Your task to perform on an android device: turn off notifications settings in the gmail app Image 0: 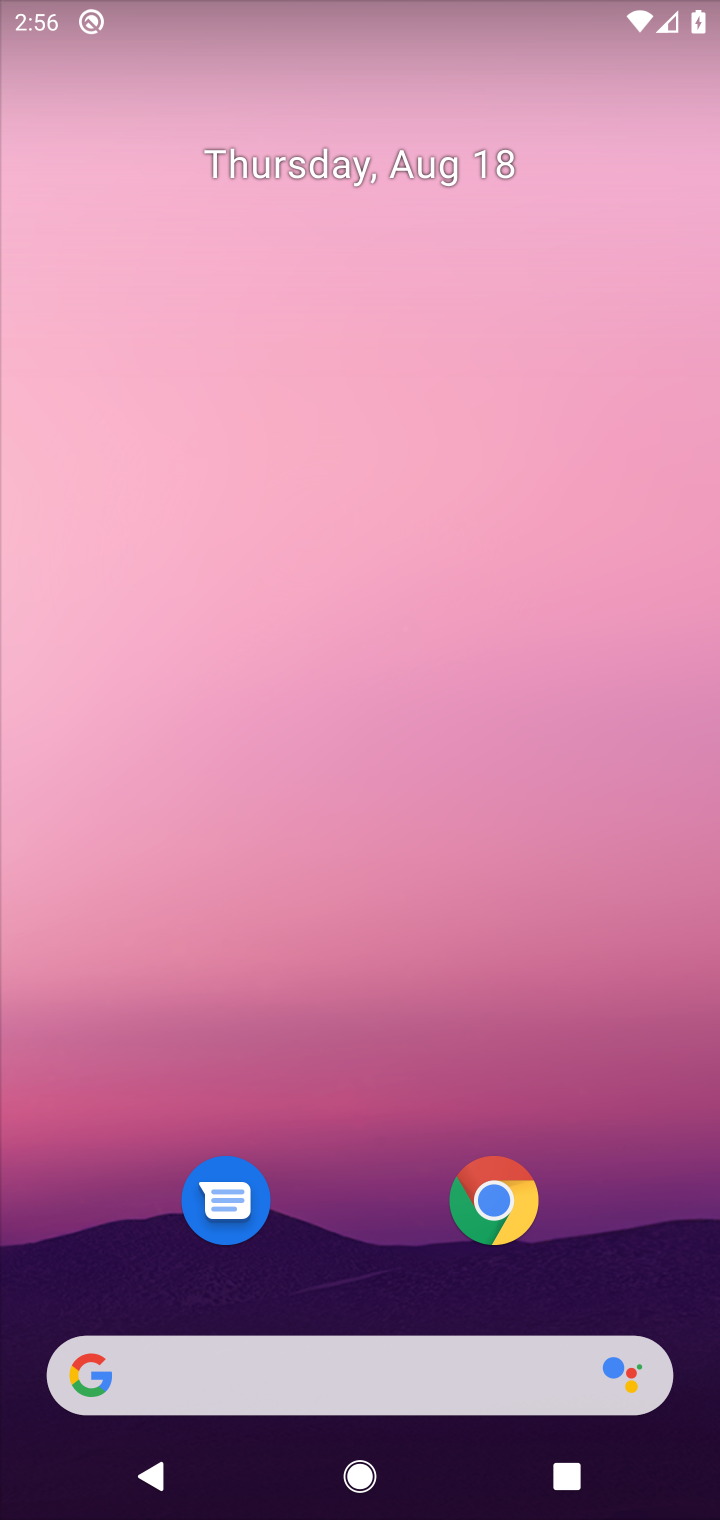
Step 0: press home button
Your task to perform on an android device: turn off notifications settings in the gmail app Image 1: 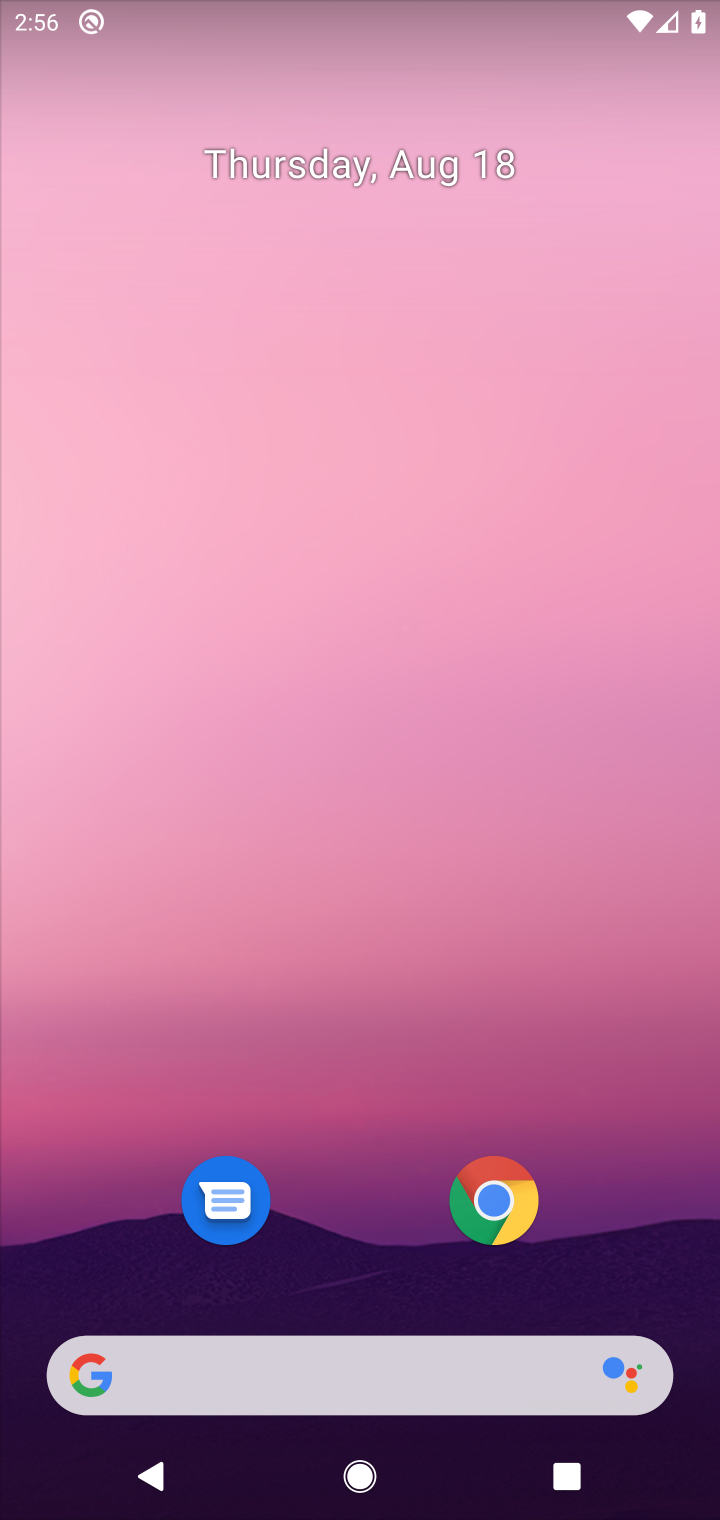
Step 1: drag from (420, 1268) to (388, 103)
Your task to perform on an android device: turn off notifications settings in the gmail app Image 2: 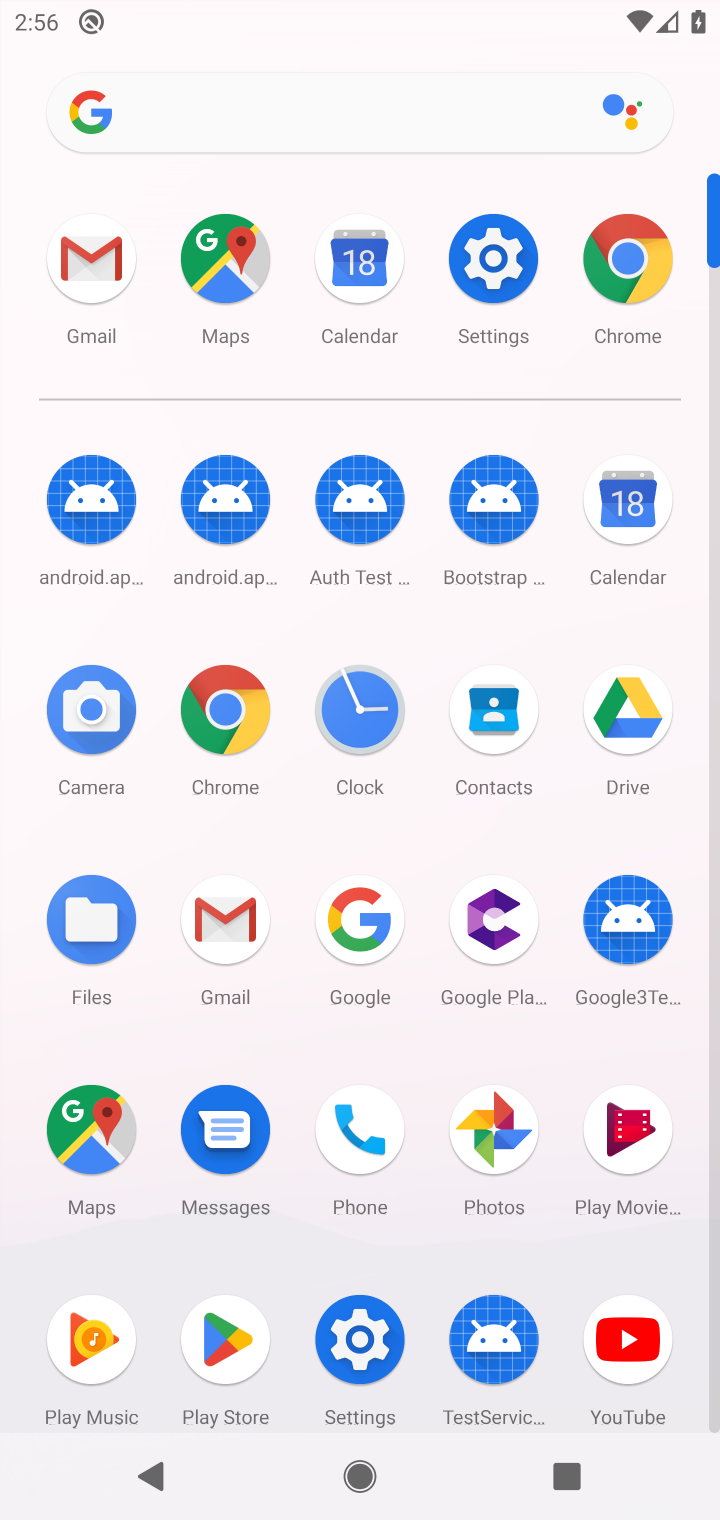
Step 2: click (366, 1312)
Your task to perform on an android device: turn off notifications settings in the gmail app Image 3: 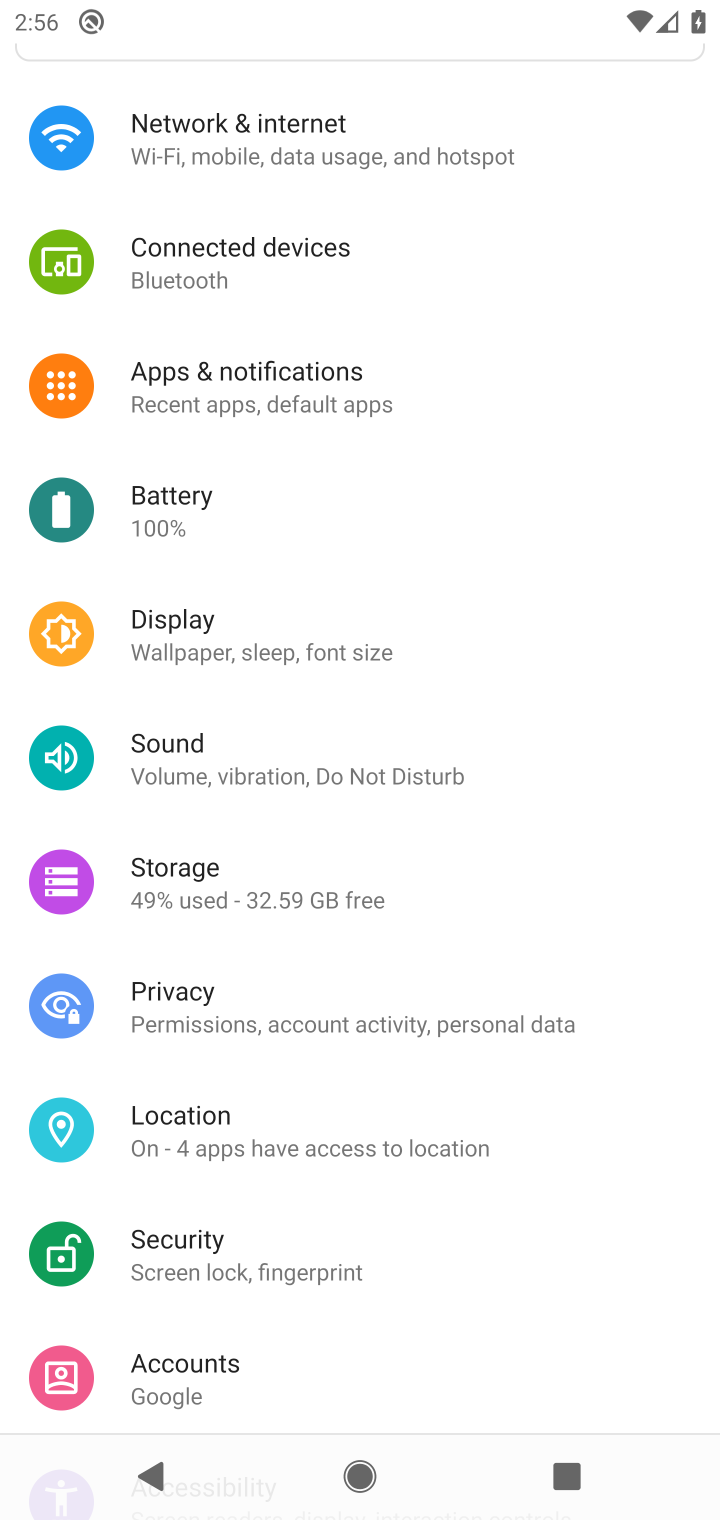
Step 3: click (277, 391)
Your task to perform on an android device: turn off notifications settings in the gmail app Image 4: 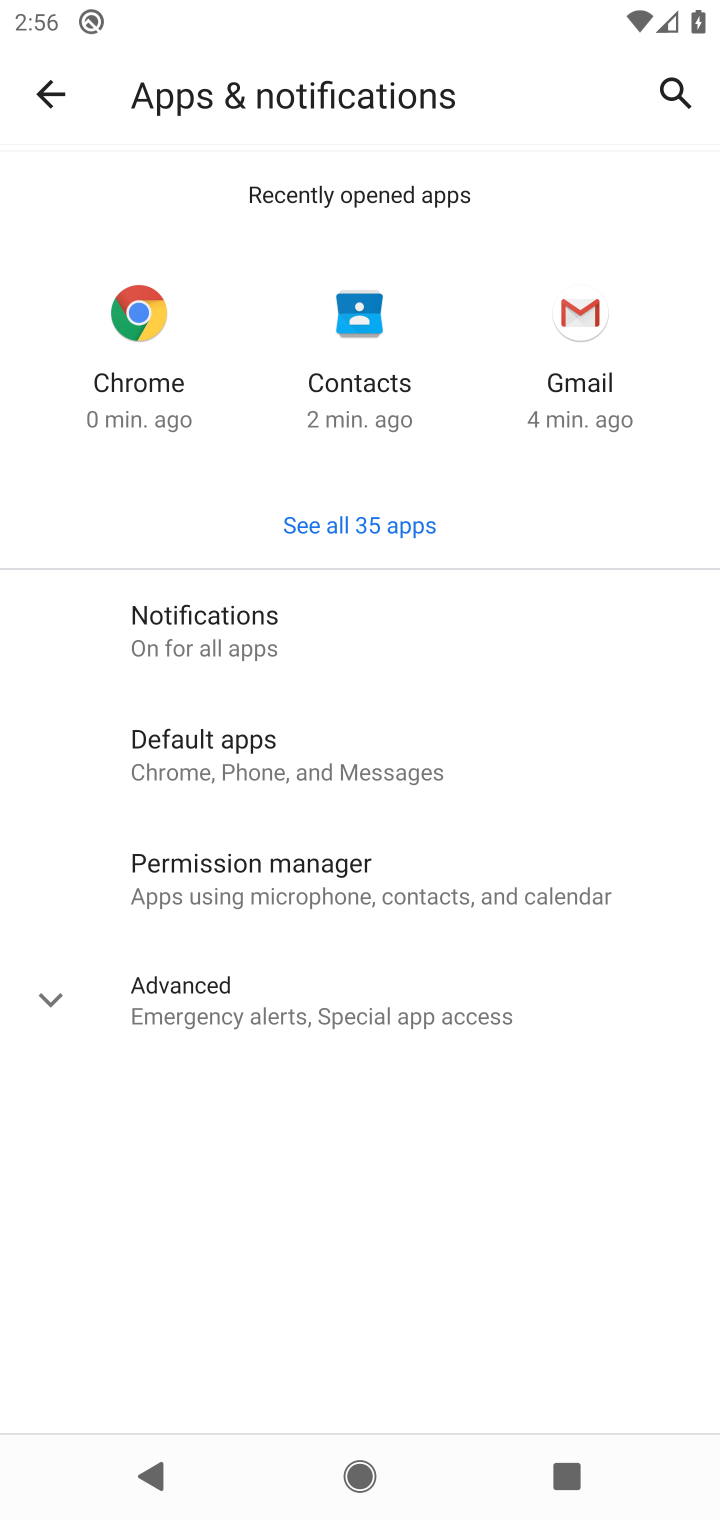
Step 4: click (242, 595)
Your task to perform on an android device: turn off notifications settings in the gmail app Image 5: 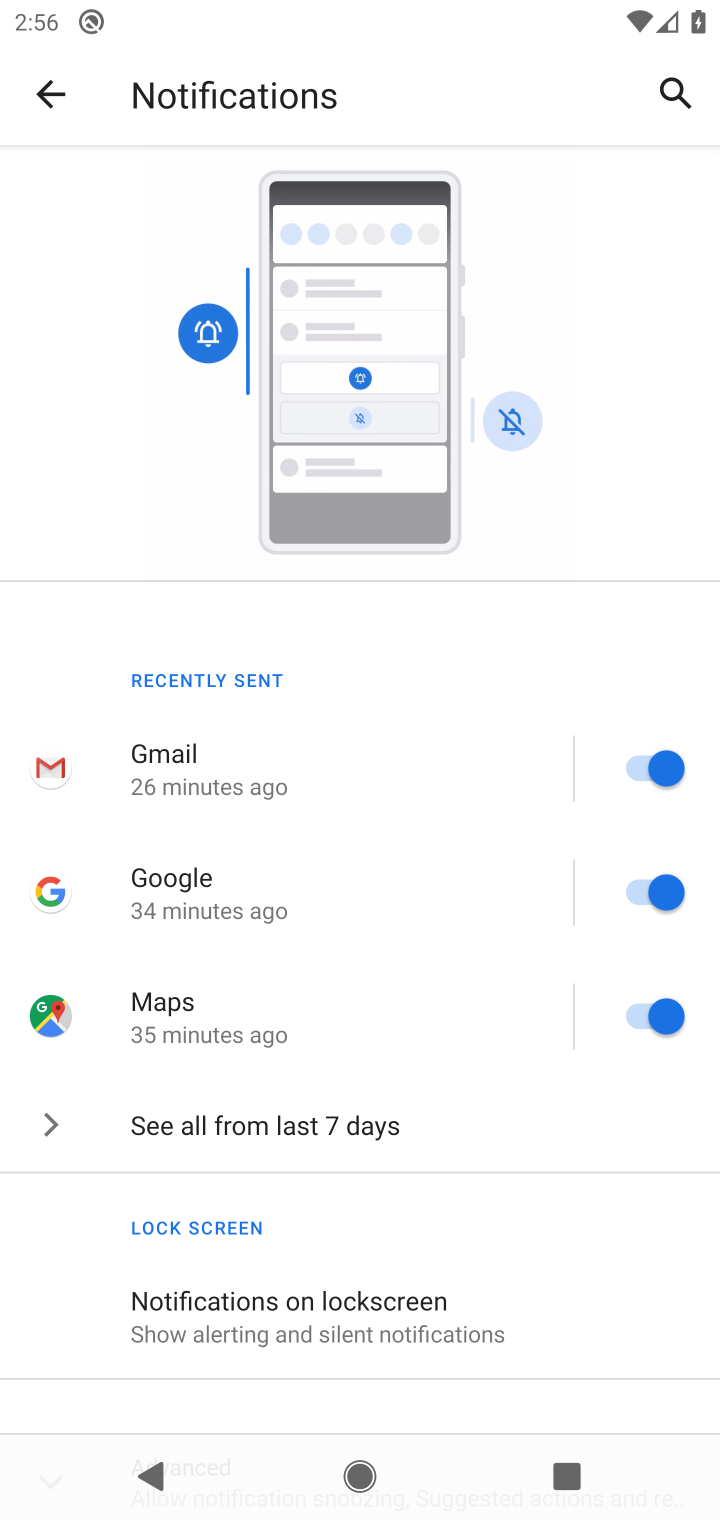
Step 5: press home button
Your task to perform on an android device: turn off notifications settings in the gmail app Image 6: 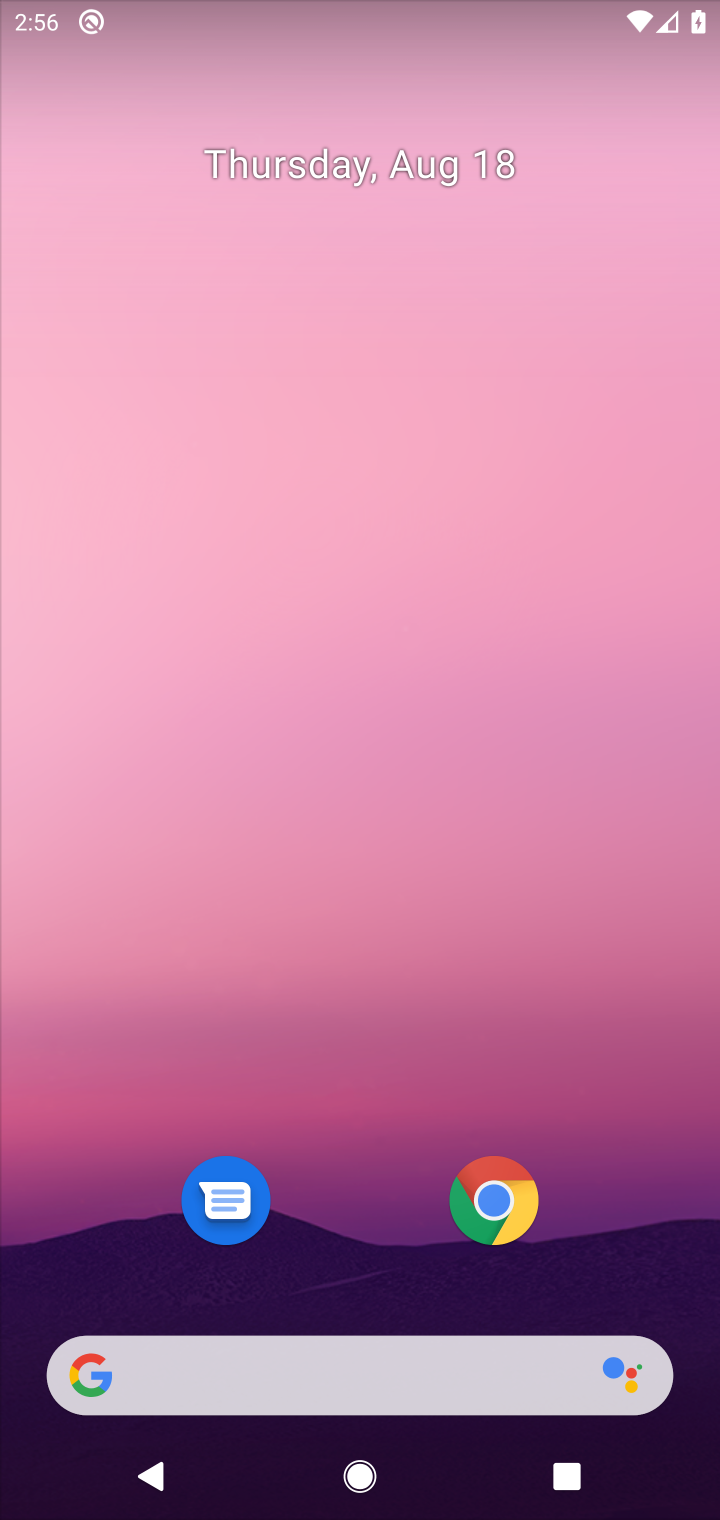
Step 6: drag from (315, 1215) to (365, 442)
Your task to perform on an android device: turn off notifications settings in the gmail app Image 7: 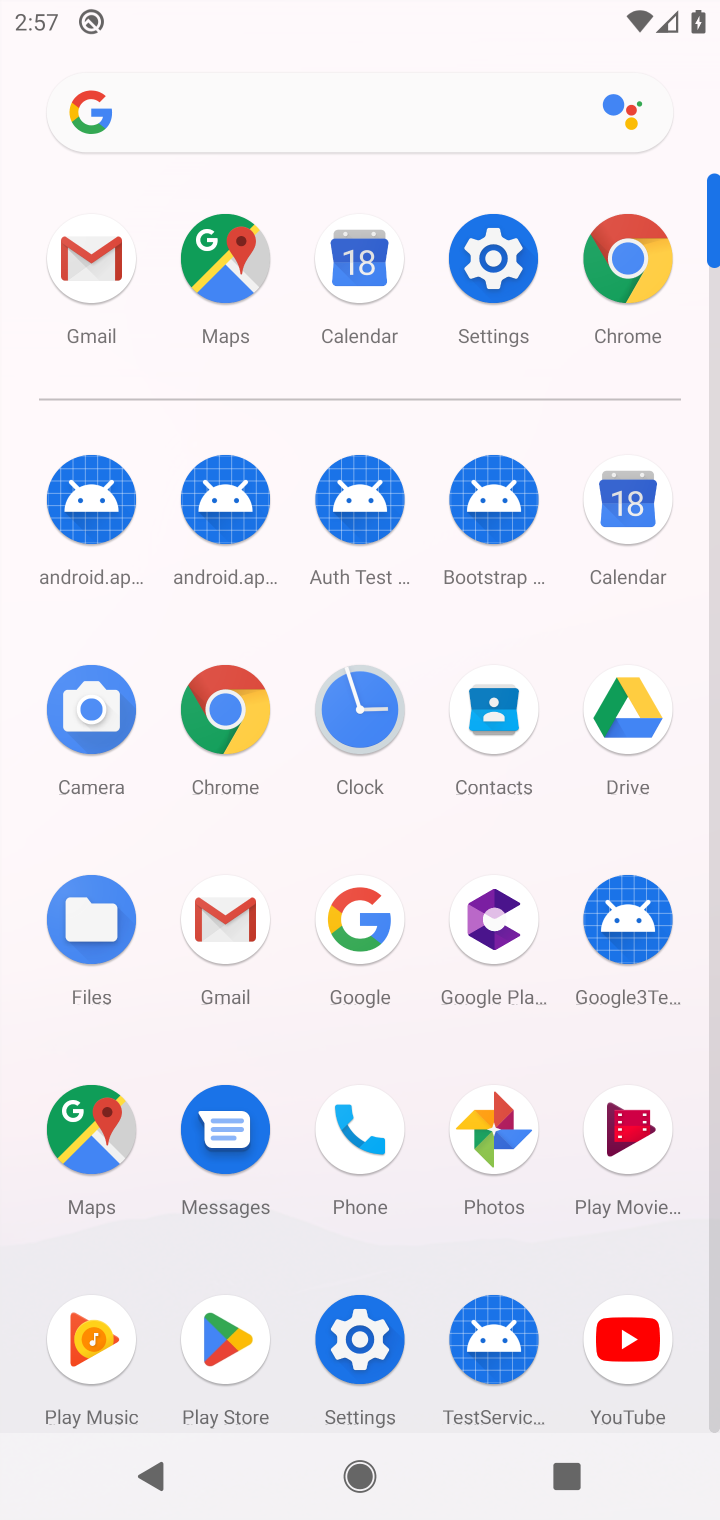
Step 7: click (208, 942)
Your task to perform on an android device: turn off notifications settings in the gmail app Image 8: 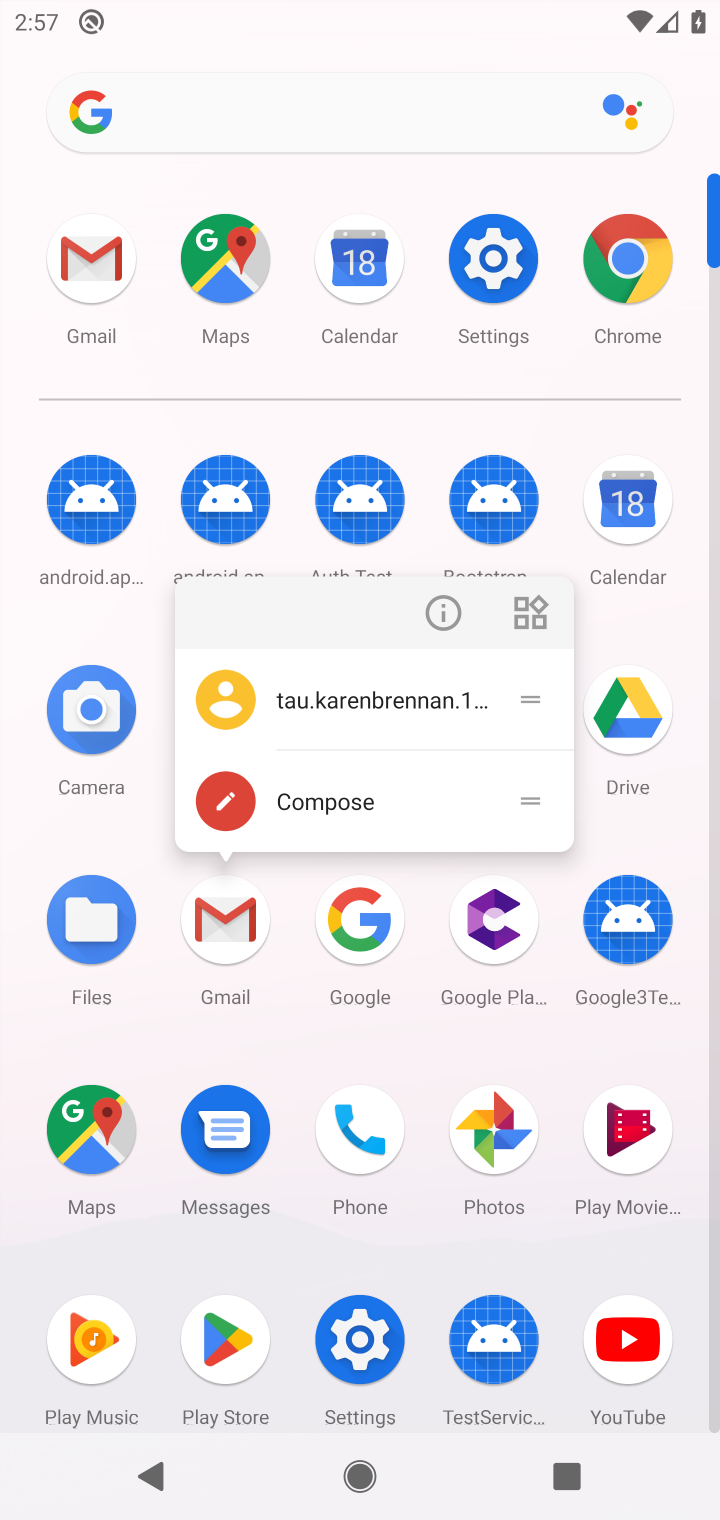
Step 8: click (421, 617)
Your task to perform on an android device: turn off notifications settings in the gmail app Image 9: 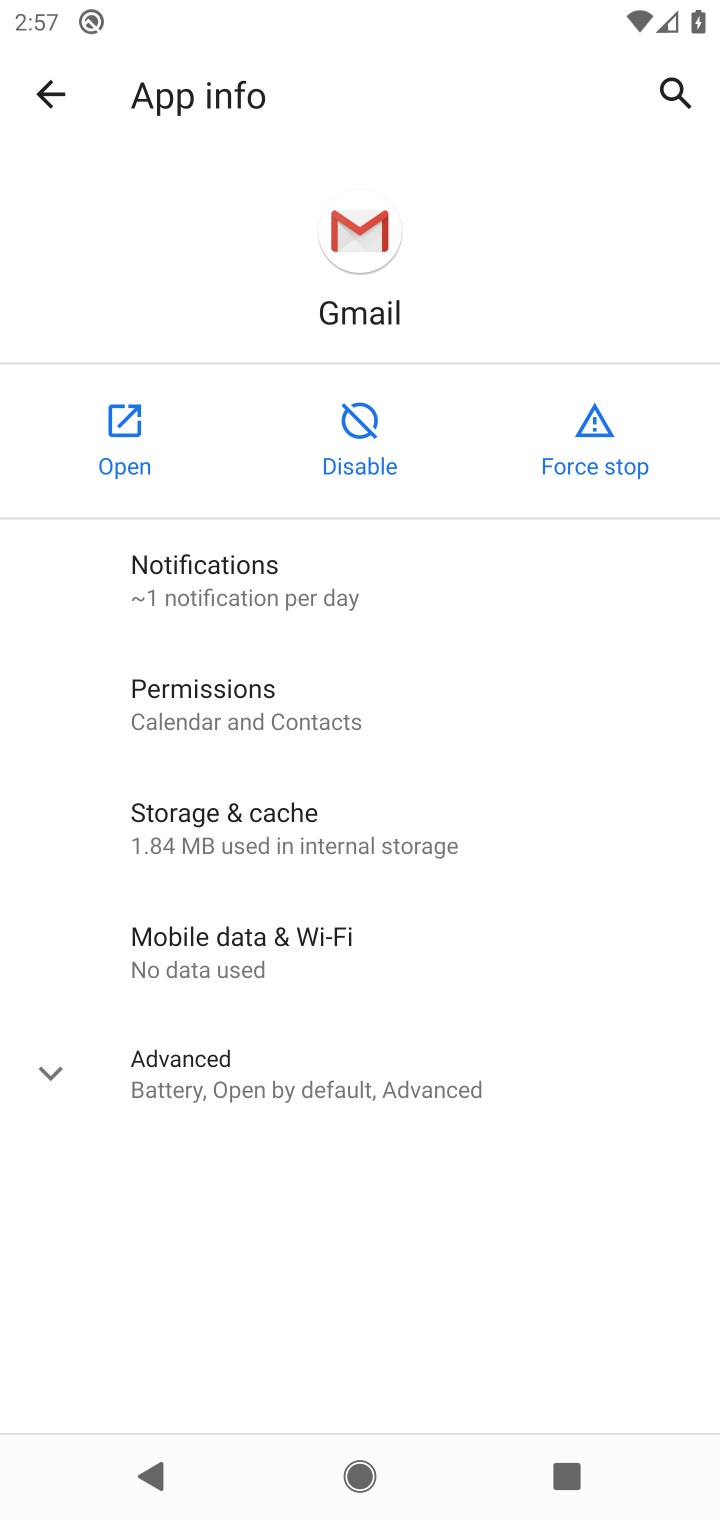
Step 9: click (290, 582)
Your task to perform on an android device: turn off notifications settings in the gmail app Image 10: 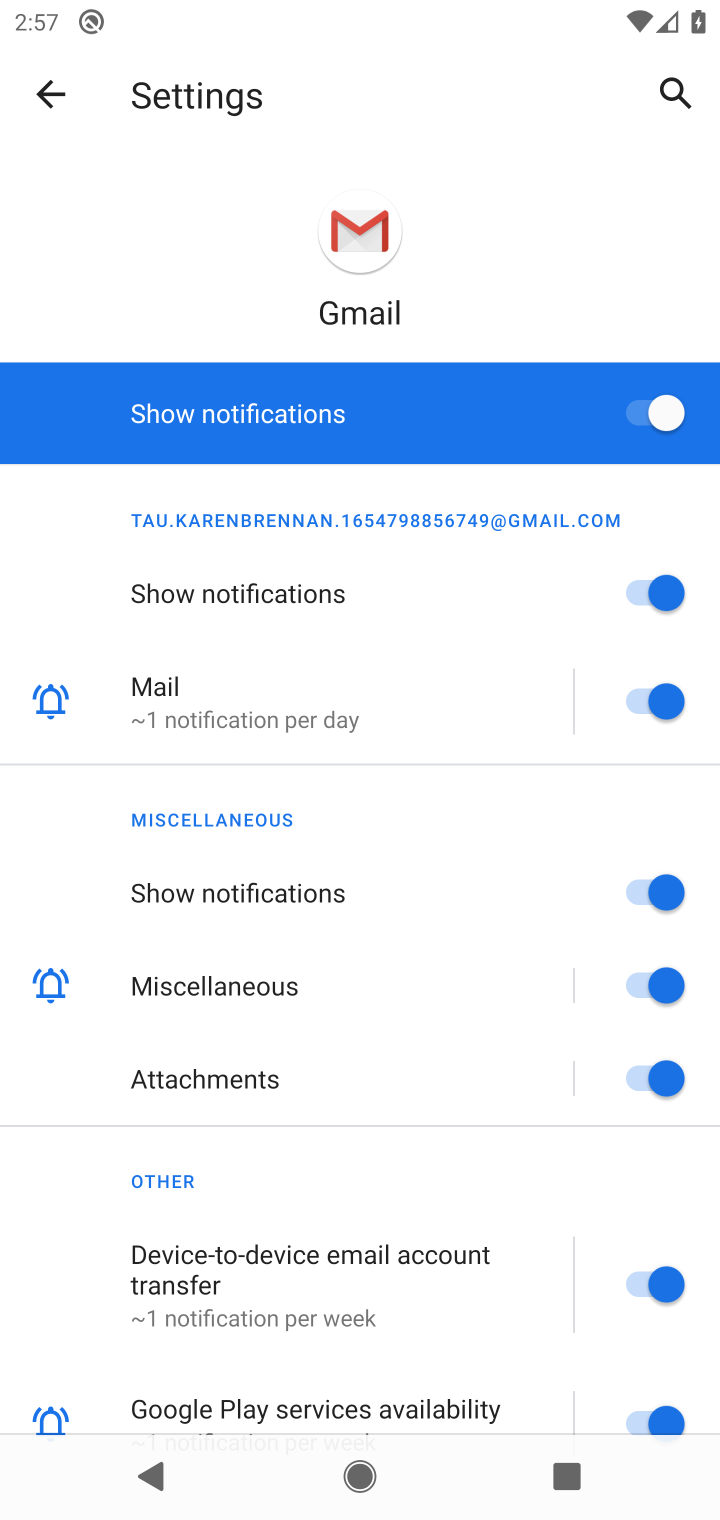
Step 10: click (443, 389)
Your task to perform on an android device: turn off notifications settings in the gmail app Image 11: 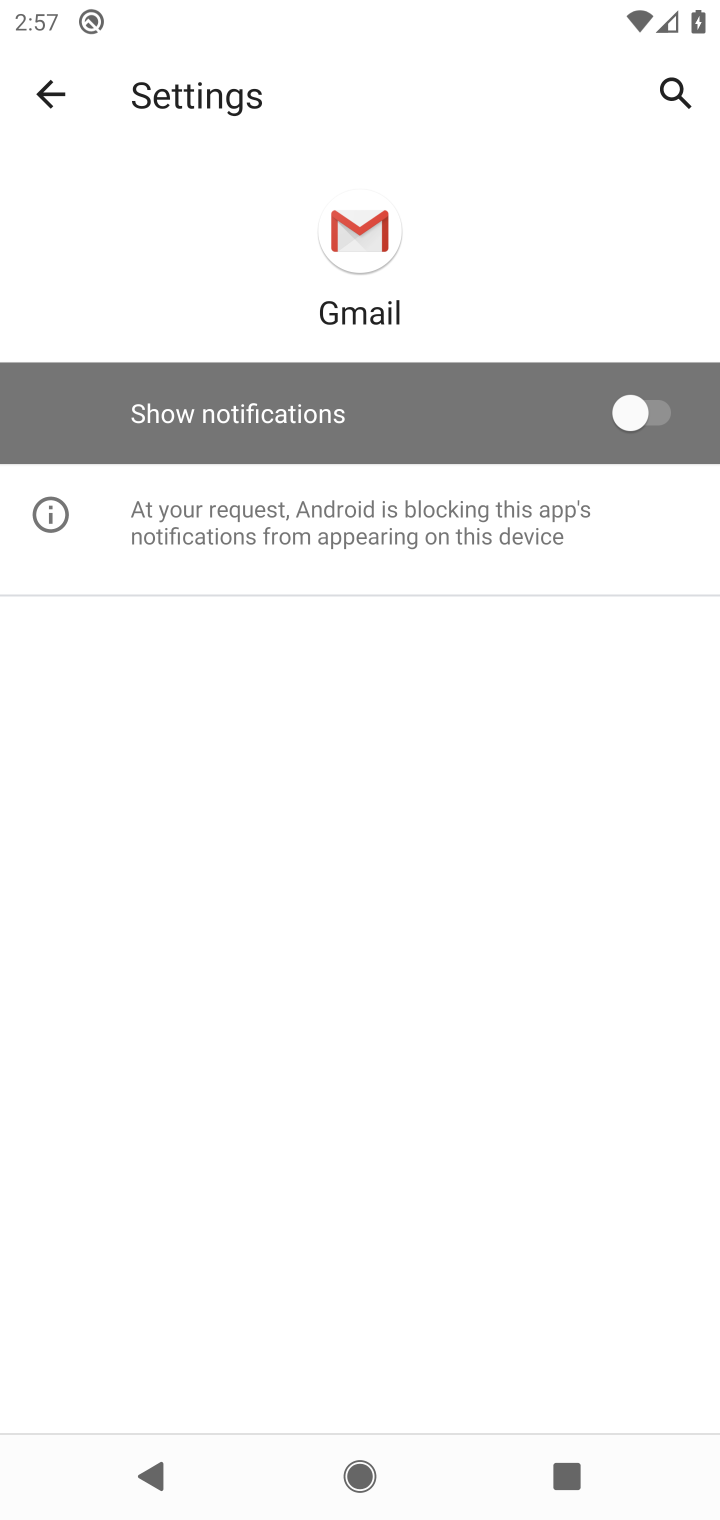
Step 11: task complete